Your task to perform on an android device: Go to sound settings Image 0: 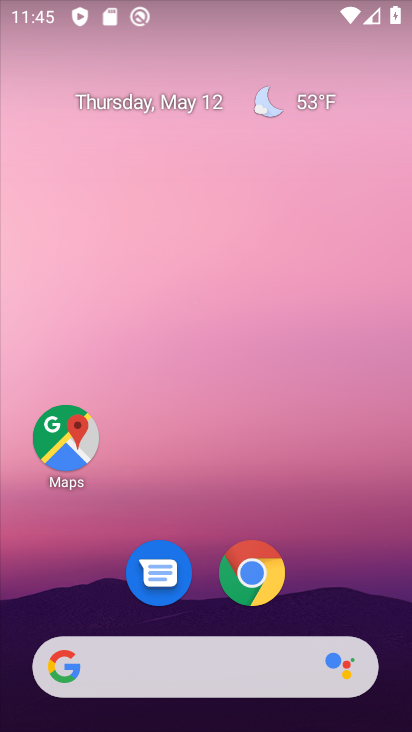
Step 0: drag from (76, 623) to (178, 240)
Your task to perform on an android device: Go to sound settings Image 1: 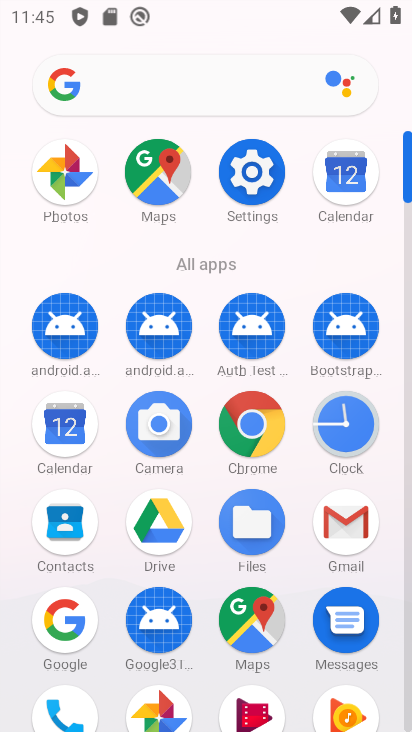
Step 1: drag from (160, 516) to (197, 343)
Your task to perform on an android device: Go to sound settings Image 2: 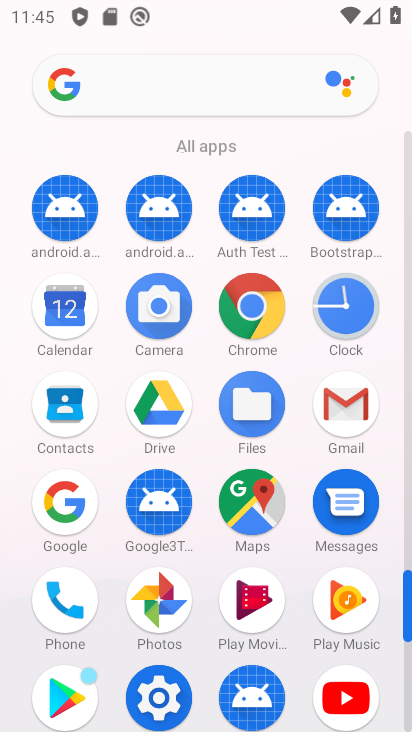
Step 2: click (156, 696)
Your task to perform on an android device: Go to sound settings Image 3: 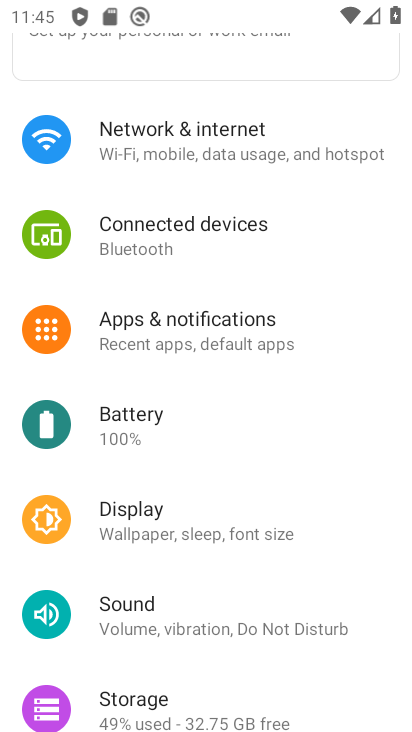
Step 3: drag from (181, 603) to (223, 457)
Your task to perform on an android device: Go to sound settings Image 4: 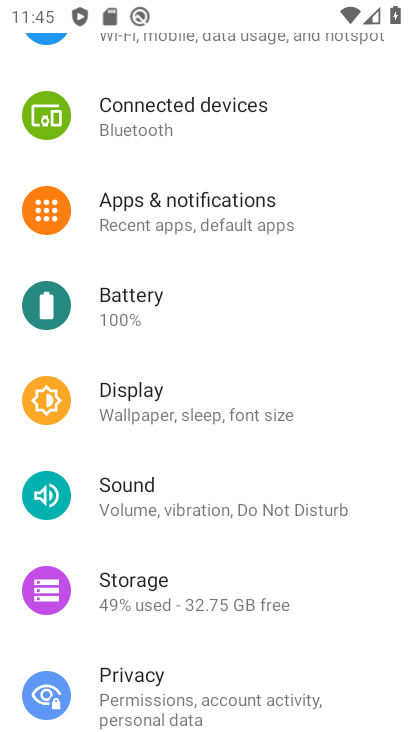
Step 4: click (156, 485)
Your task to perform on an android device: Go to sound settings Image 5: 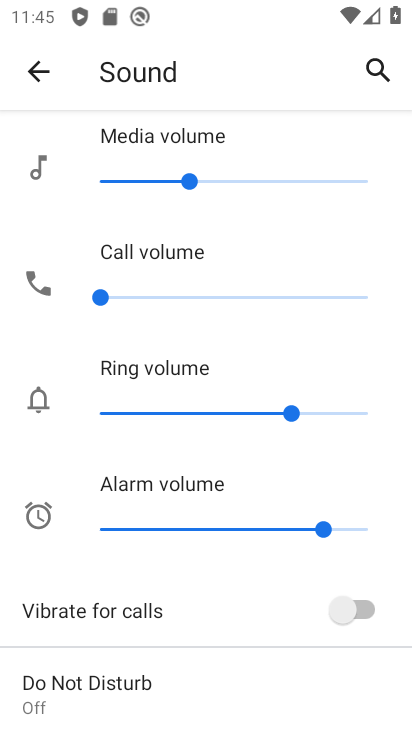
Step 5: task complete